Your task to perform on an android device: Clear the cart on walmart.com. Add logitech g910 to the cart on walmart.com, then select checkout. Image 0: 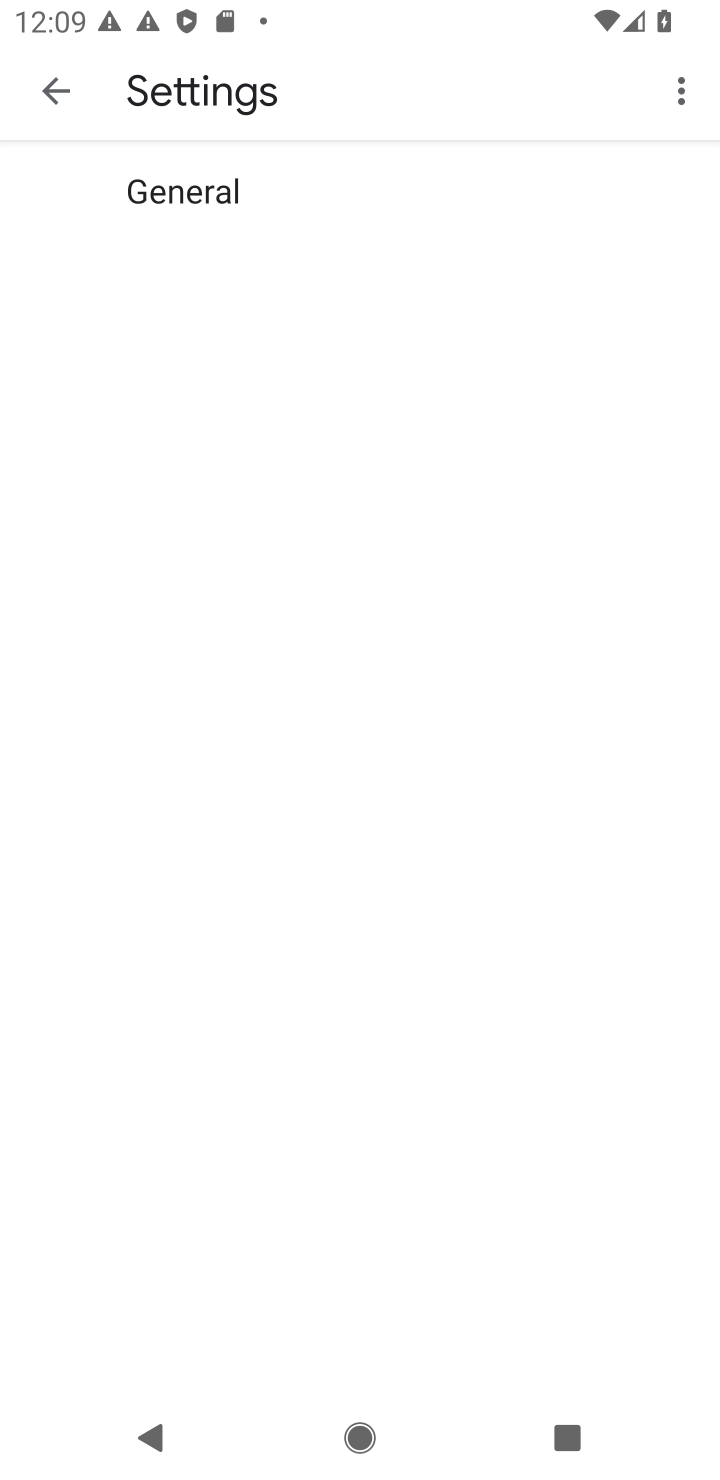
Step 0: press home button
Your task to perform on an android device: Clear the cart on walmart.com. Add logitech g910 to the cart on walmart.com, then select checkout. Image 1: 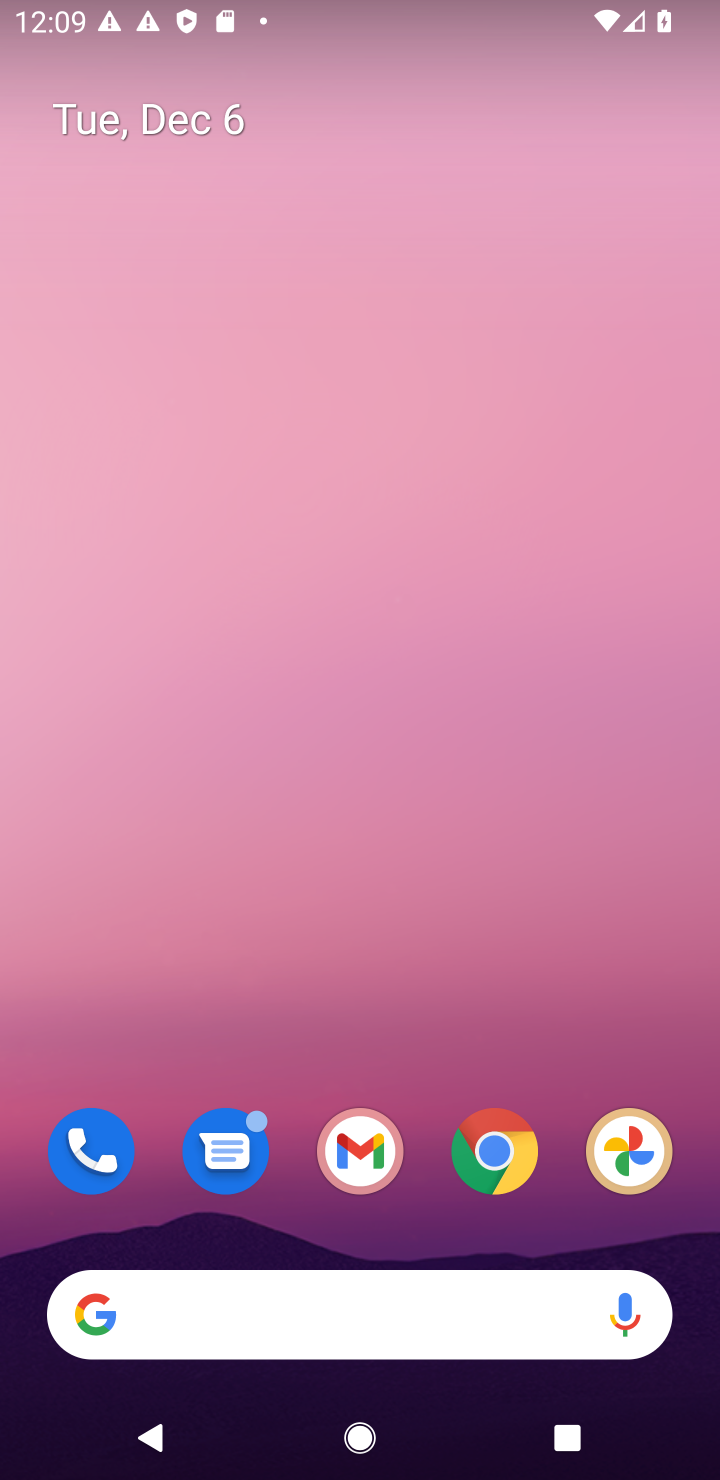
Step 1: click (507, 1155)
Your task to perform on an android device: Clear the cart on walmart.com. Add logitech g910 to the cart on walmart.com, then select checkout. Image 2: 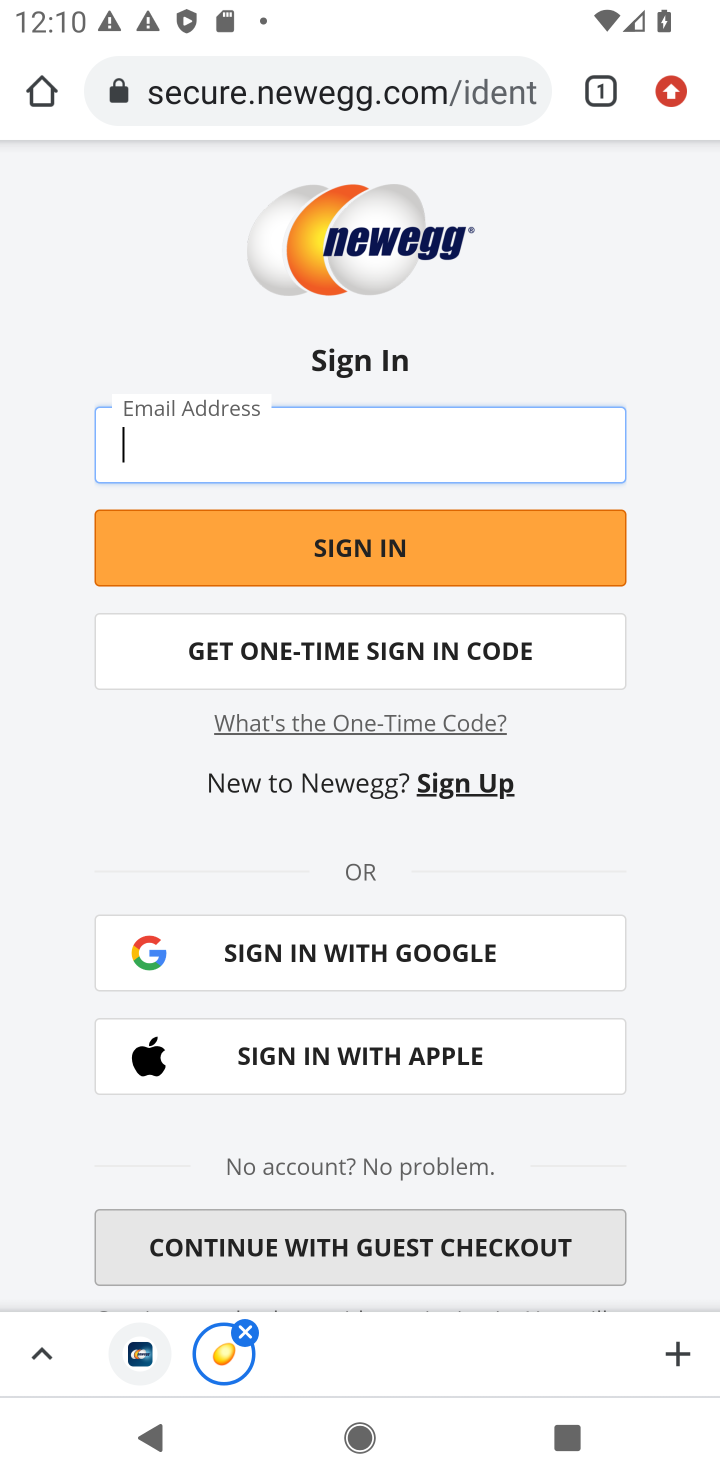
Step 2: click (299, 103)
Your task to perform on an android device: Clear the cart on walmart.com. Add logitech g910 to the cart on walmart.com, then select checkout. Image 3: 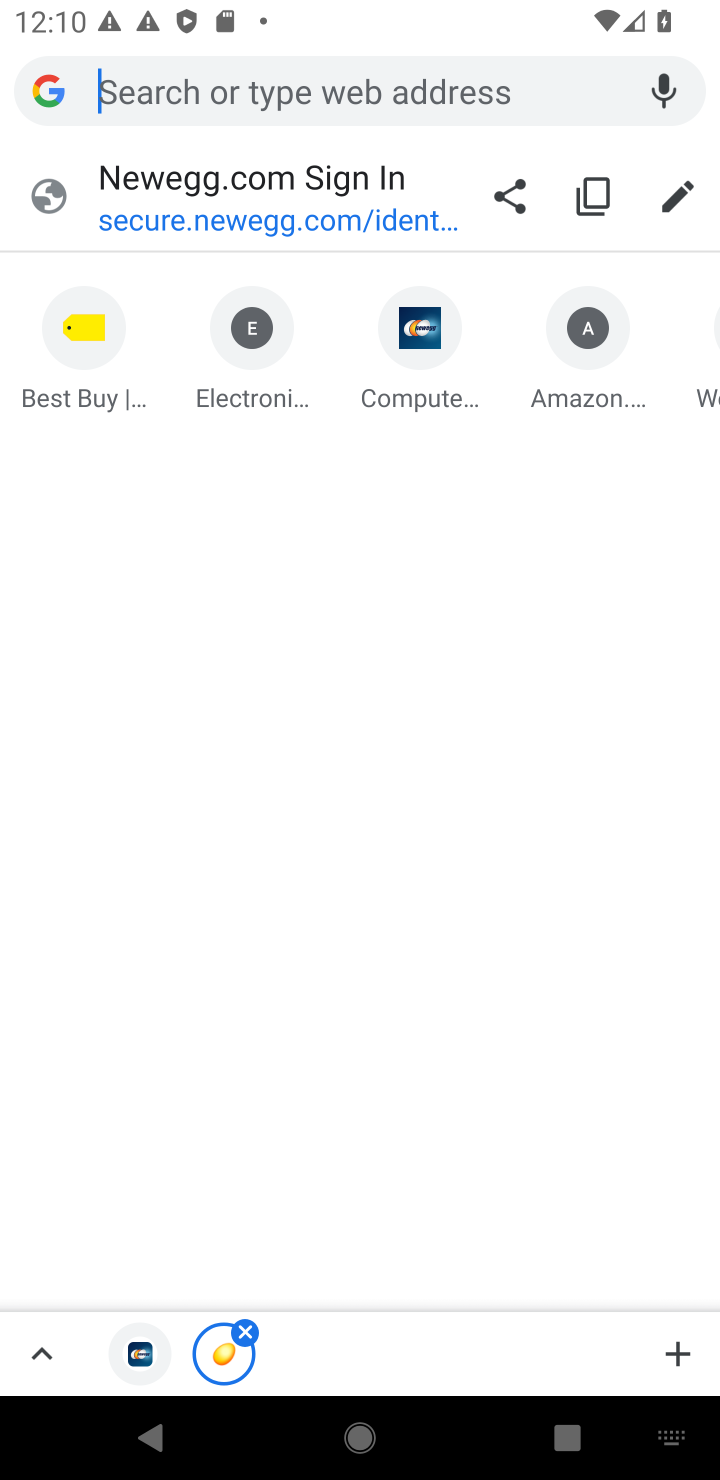
Step 3: type "walmart.com"
Your task to perform on an android device: Clear the cart on walmart.com. Add logitech g910 to the cart on walmart.com, then select checkout. Image 4: 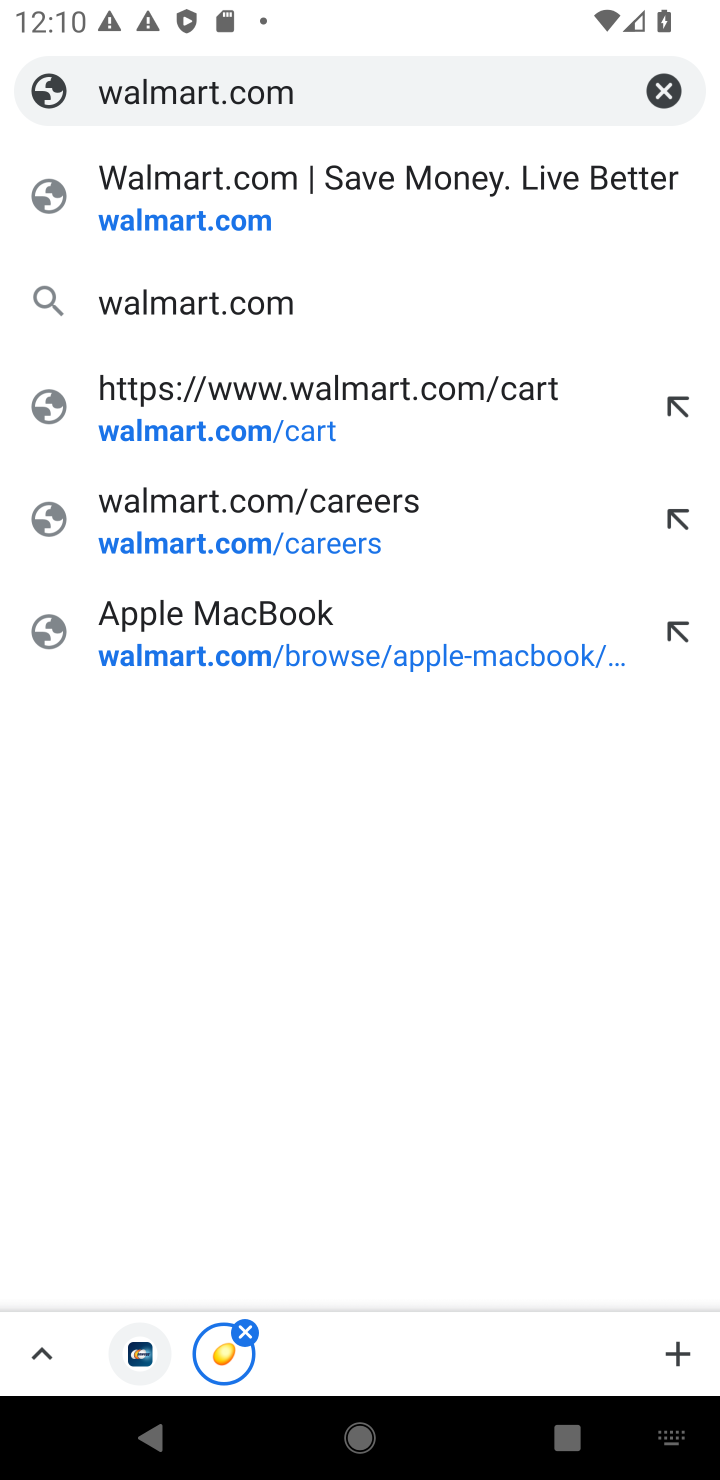
Step 4: click (203, 221)
Your task to perform on an android device: Clear the cart on walmart.com. Add logitech g910 to the cart on walmart.com, then select checkout. Image 5: 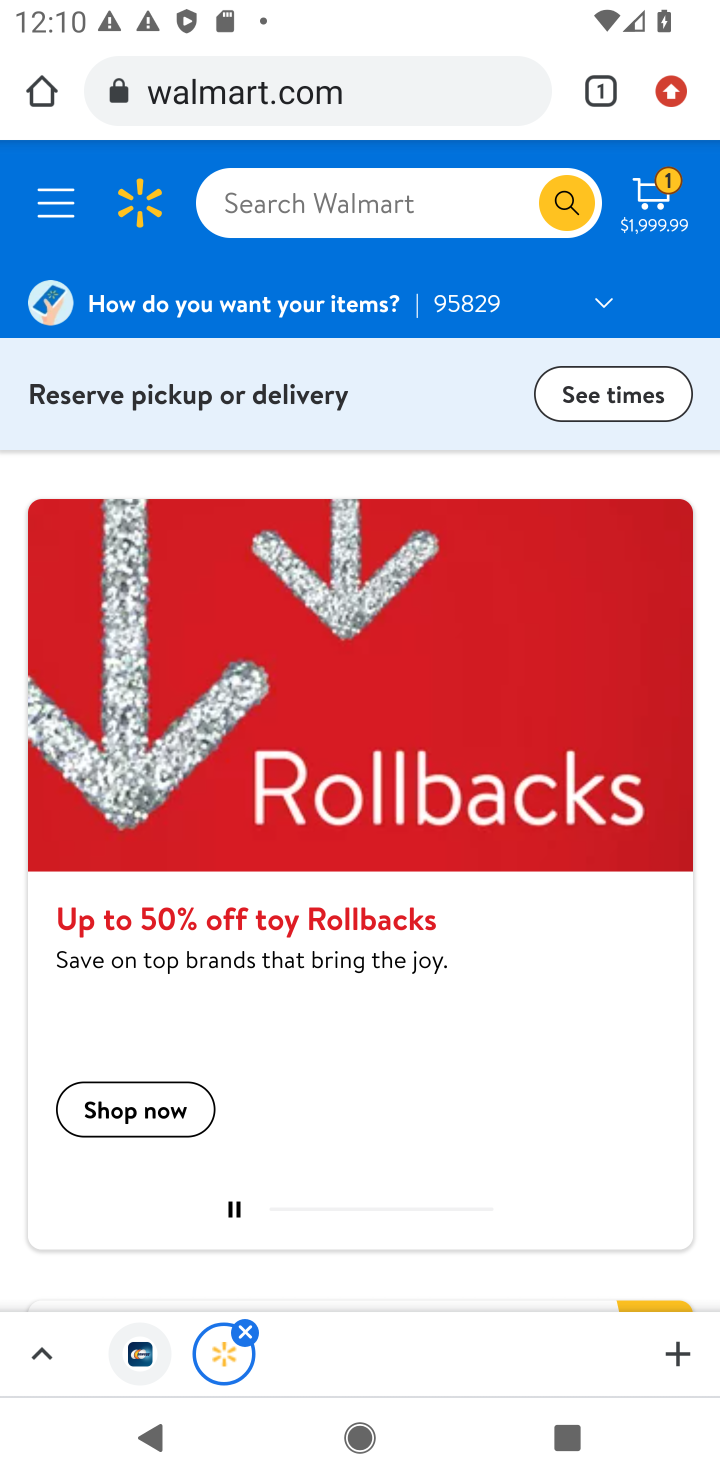
Step 5: click (655, 202)
Your task to perform on an android device: Clear the cart on walmart.com. Add logitech g910 to the cart on walmart.com, then select checkout. Image 6: 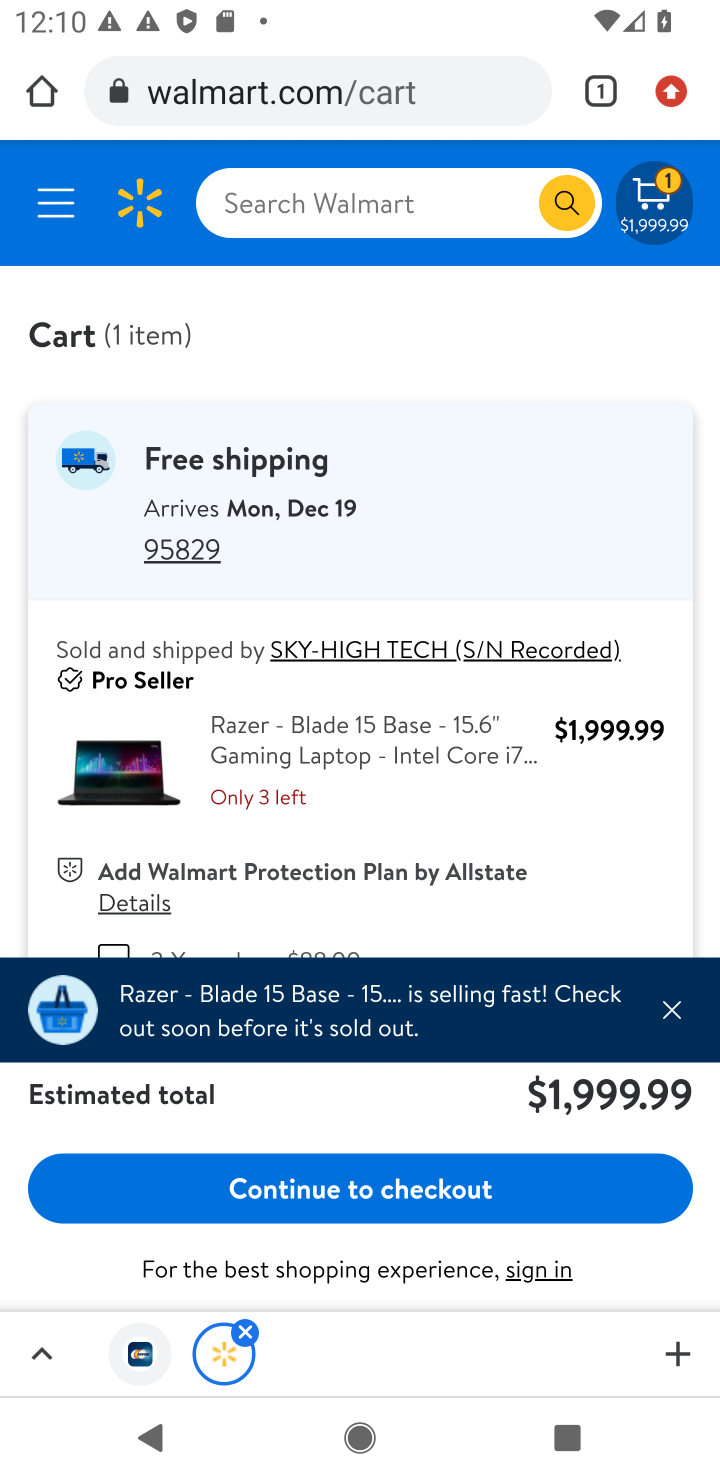
Step 6: click (686, 1012)
Your task to perform on an android device: Clear the cart on walmart.com. Add logitech g910 to the cart on walmart.com, then select checkout. Image 7: 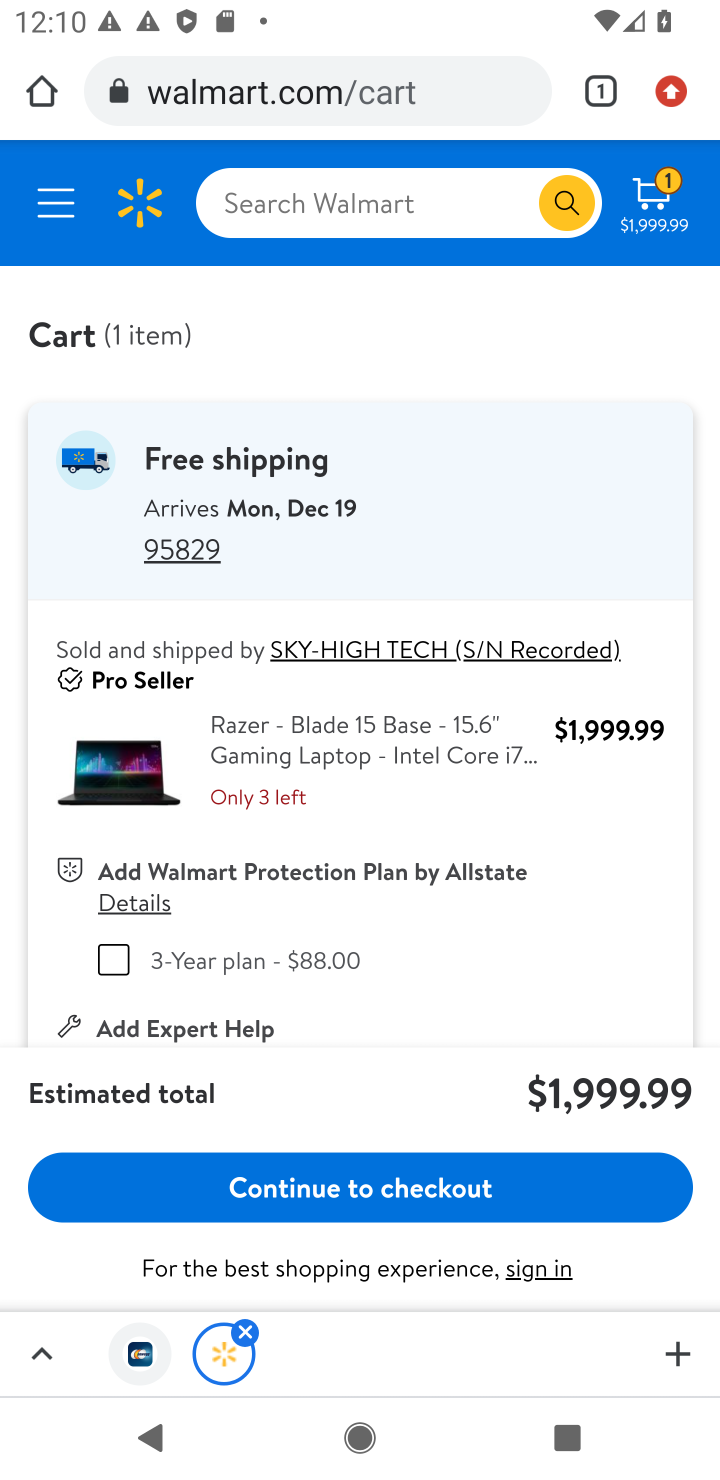
Step 7: drag from (230, 1012) to (255, 512)
Your task to perform on an android device: Clear the cart on walmart.com. Add logitech g910 to the cart on walmart.com, then select checkout. Image 8: 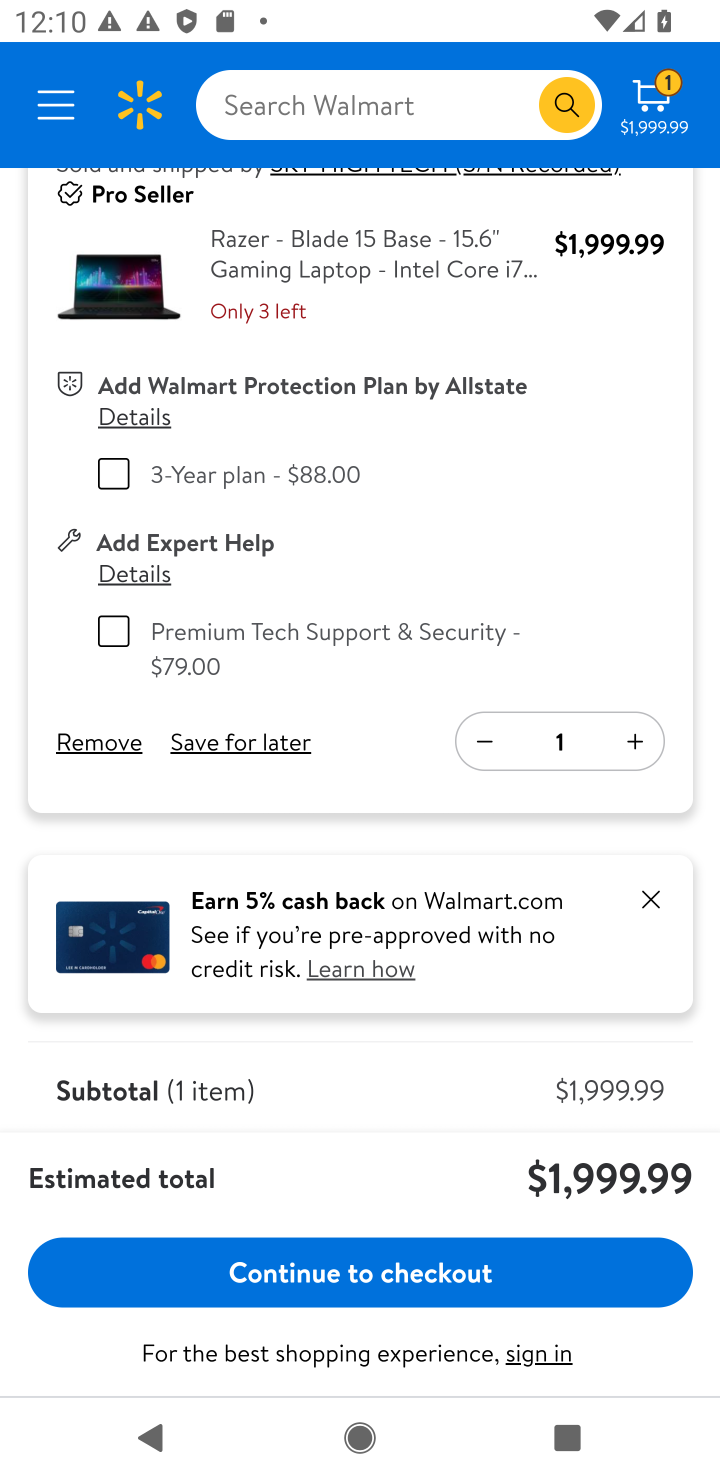
Step 8: click (74, 741)
Your task to perform on an android device: Clear the cart on walmart.com. Add logitech g910 to the cart on walmart.com, then select checkout. Image 9: 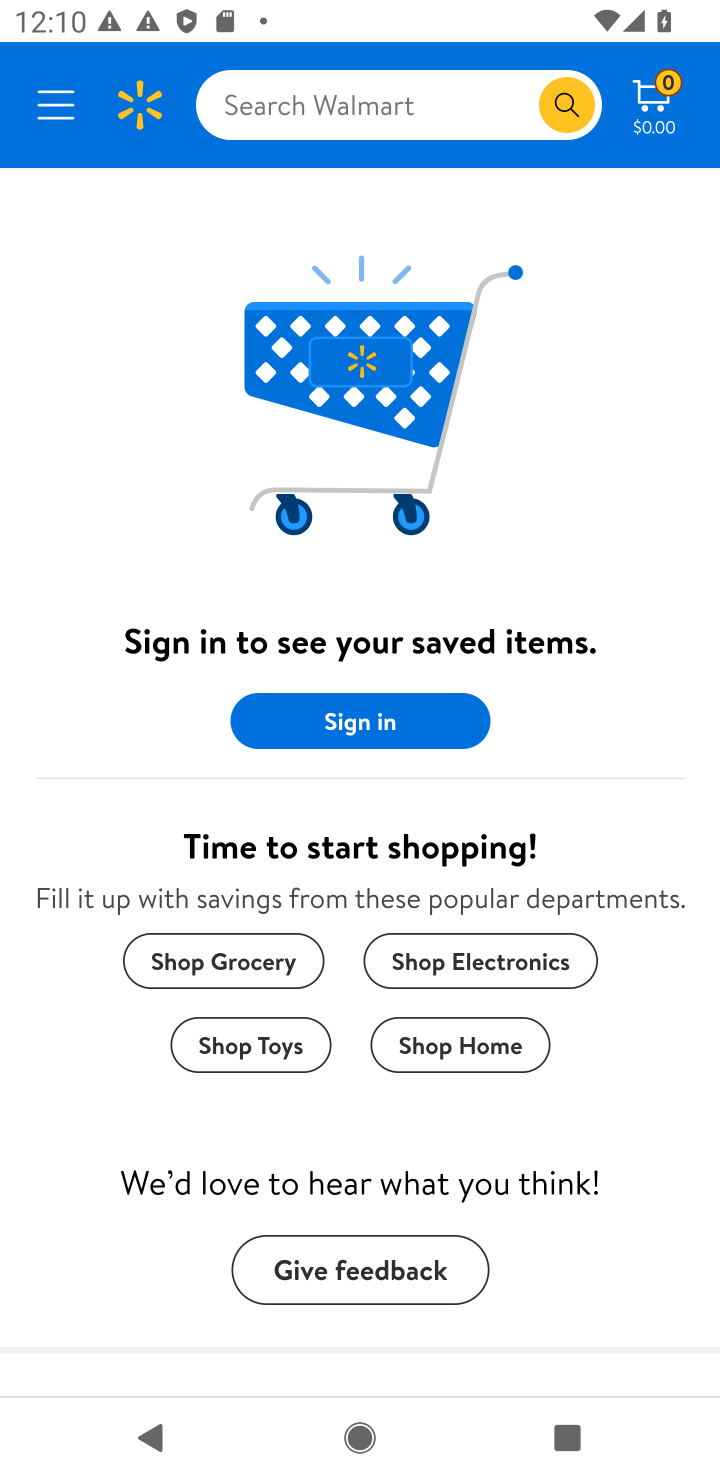
Step 9: click (310, 115)
Your task to perform on an android device: Clear the cart on walmart.com. Add logitech g910 to the cart on walmart.com, then select checkout. Image 10: 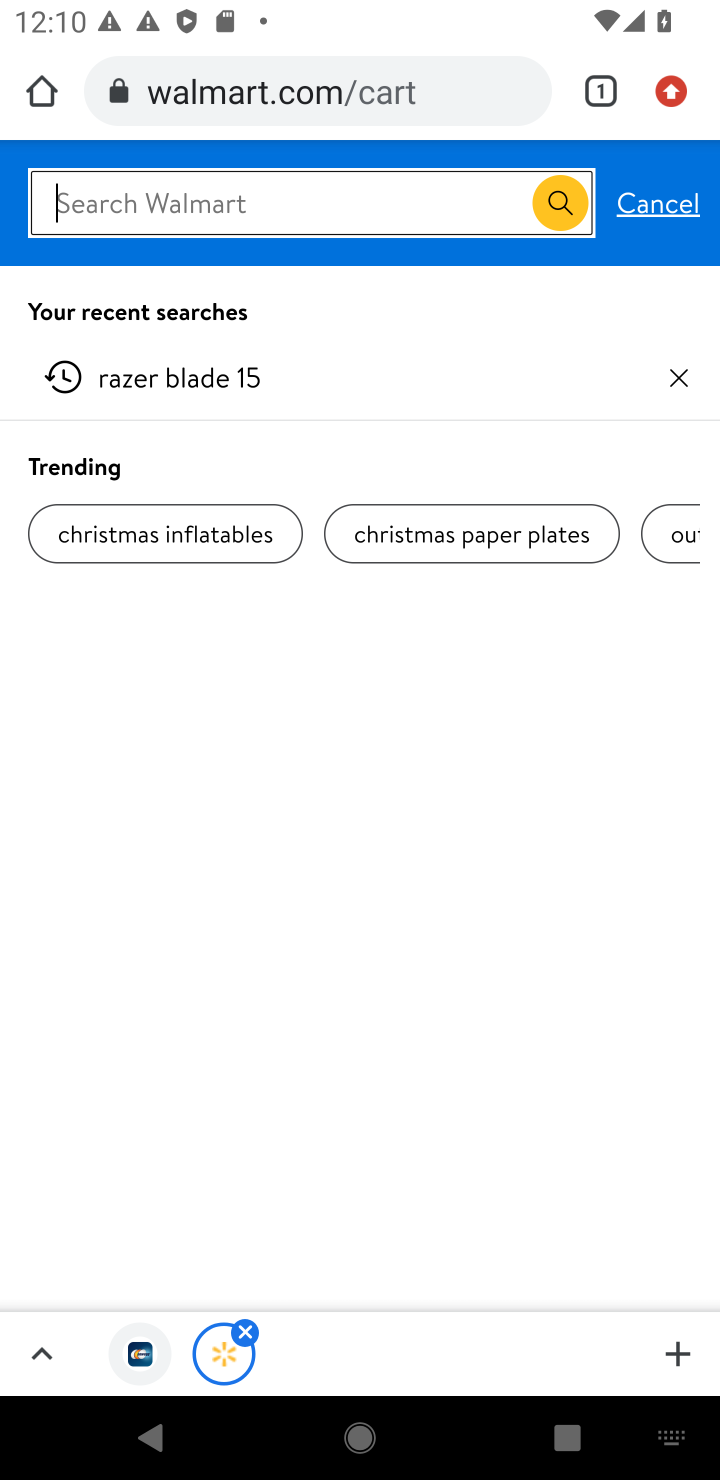
Step 10: type "logitech g910 "
Your task to perform on an android device: Clear the cart on walmart.com. Add logitech g910 to the cart on walmart.com, then select checkout. Image 11: 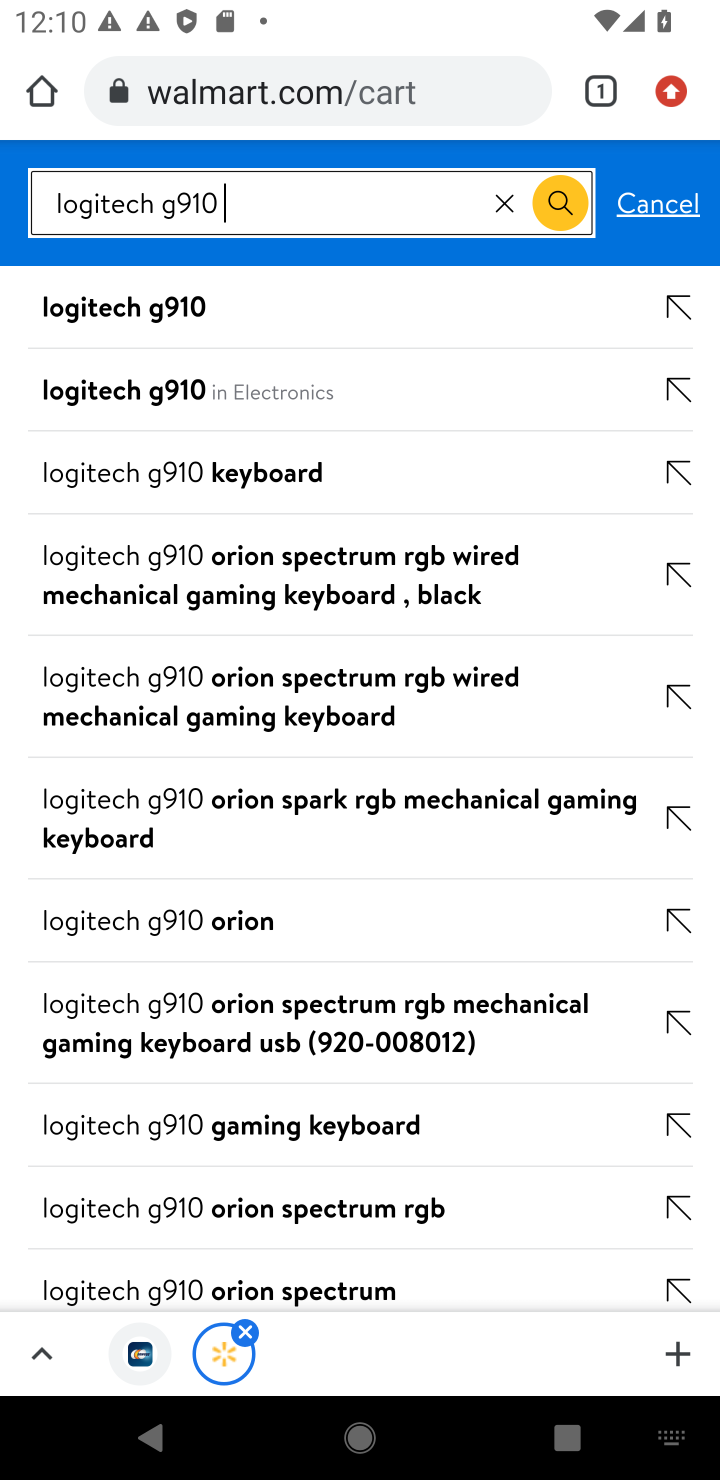
Step 11: click (95, 309)
Your task to perform on an android device: Clear the cart on walmart.com. Add logitech g910 to the cart on walmart.com, then select checkout. Image 12: 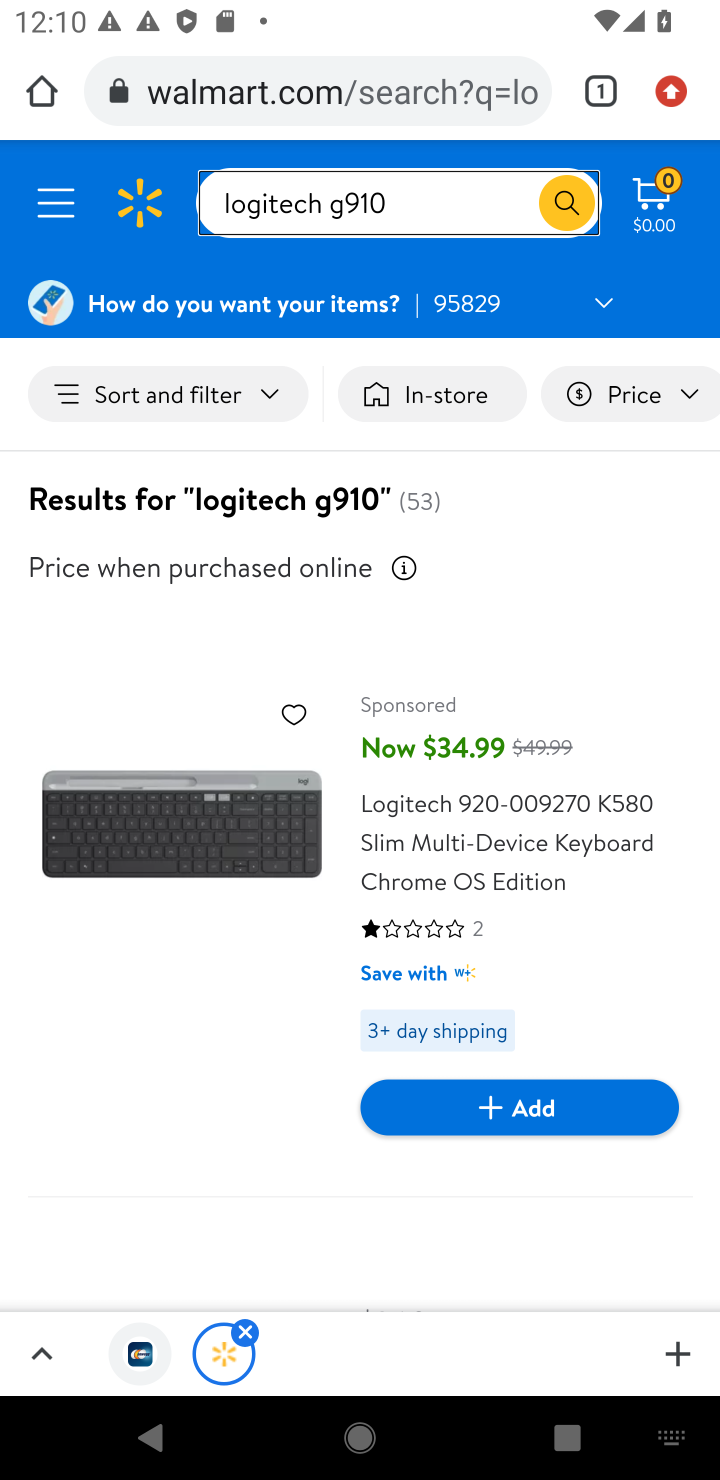
Step 12: drag from (322, 980) to (350, 418)
Your task to perform on an android device: Clear the cart on walmart.com. Add logitech g910 to the cart on walmart.com, then select checkout. Image 13: 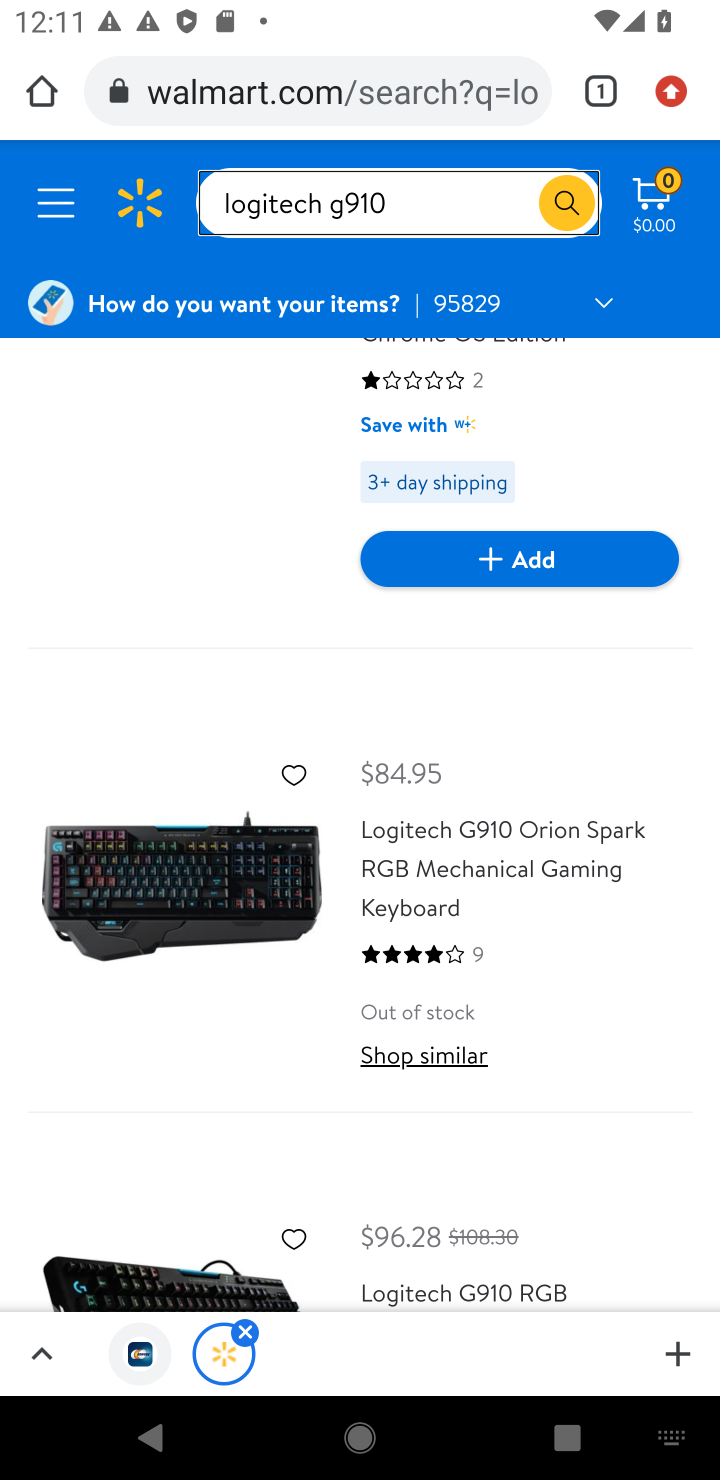
Step 13: drag from (306, 1041) to (344, 334)
Your task to perform on an android device: Clear the cart on walmart.com. Add logitech g910 to the cart on walmart.com, then select checkout. Image 14: 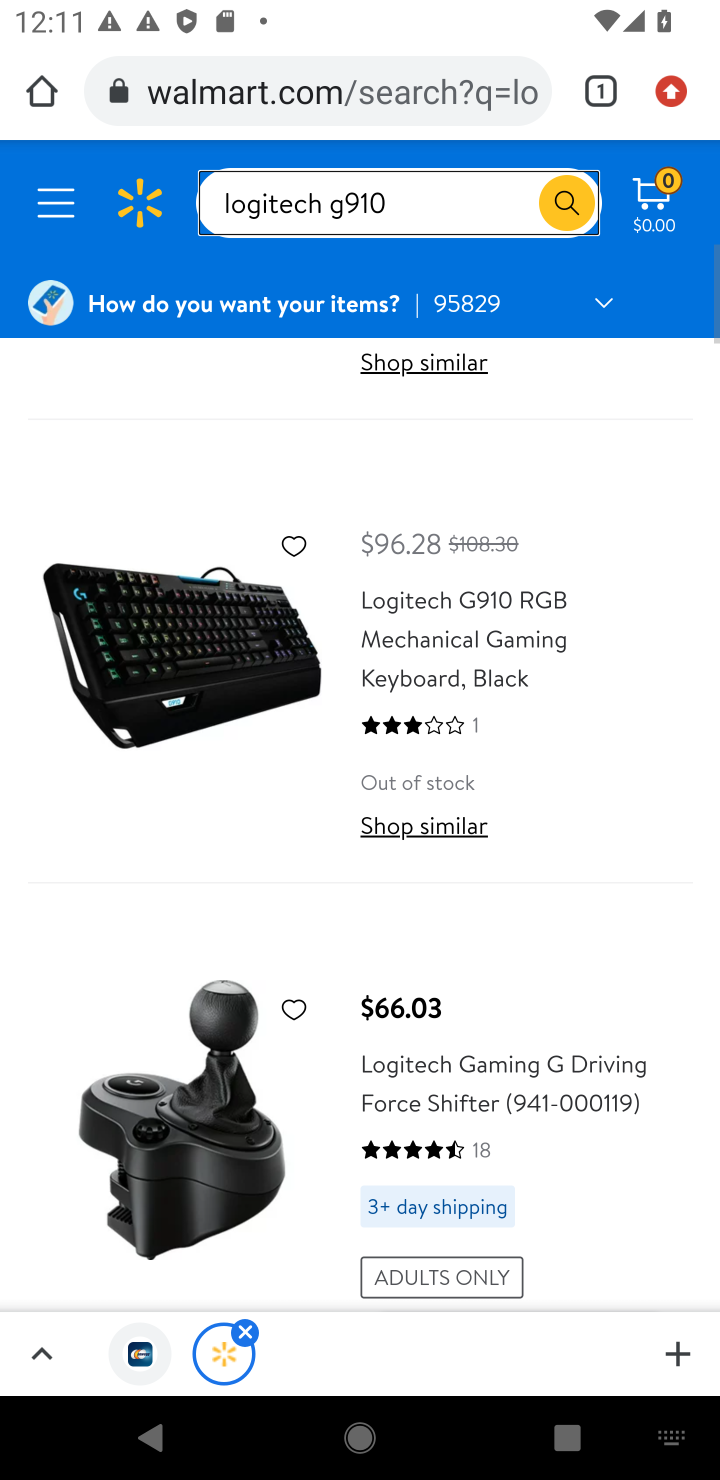
Step 14: drag from (245, 1170) to (299, 547)
Your task to perform on an android device: Clear the cart on walmart.com. Add logitech g910 to the cart on walmart.com, then select checkout. Image 15: 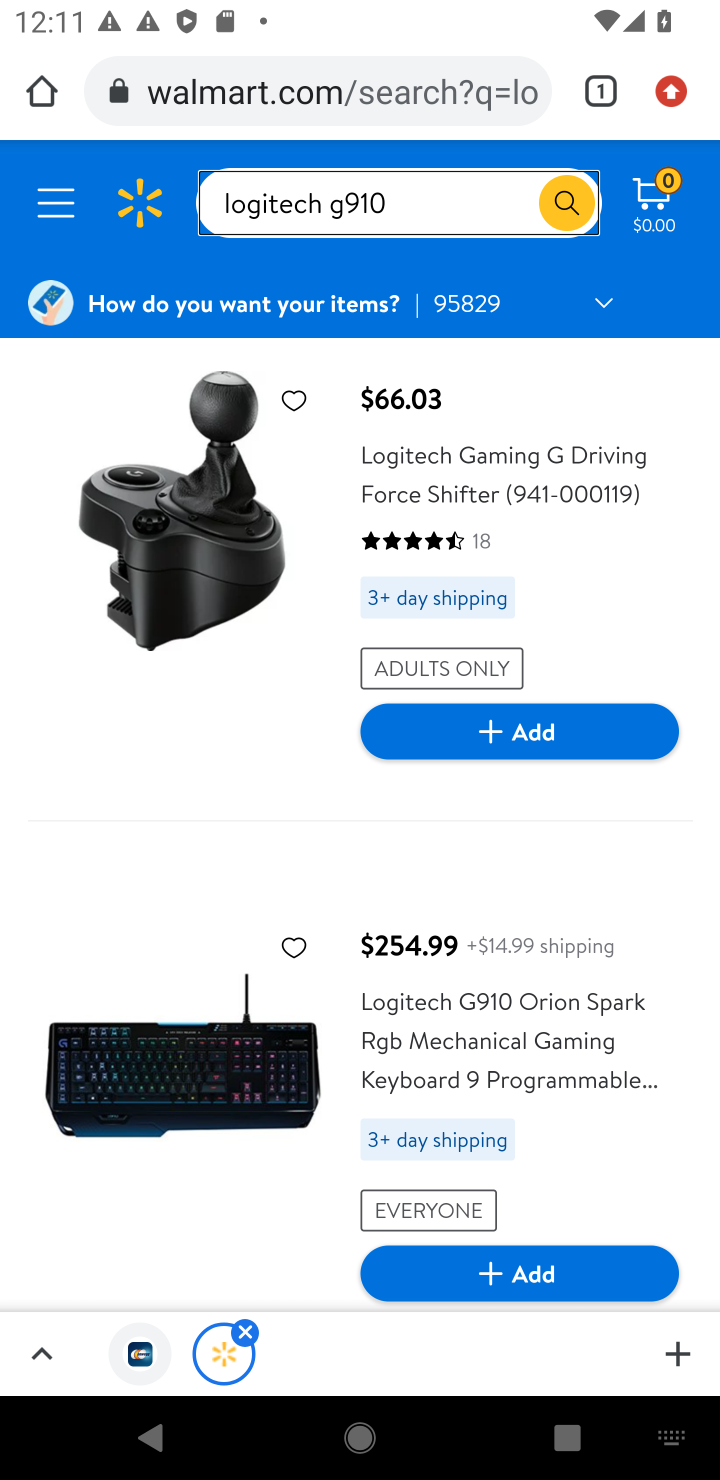
Step 15: drag from (299, 527) to (321, 1065)
Your task to perform on an android device: Clear the cart on walmart.com. Add logitech g910 to the cart on walmart.com, then select checkout. Image 16: 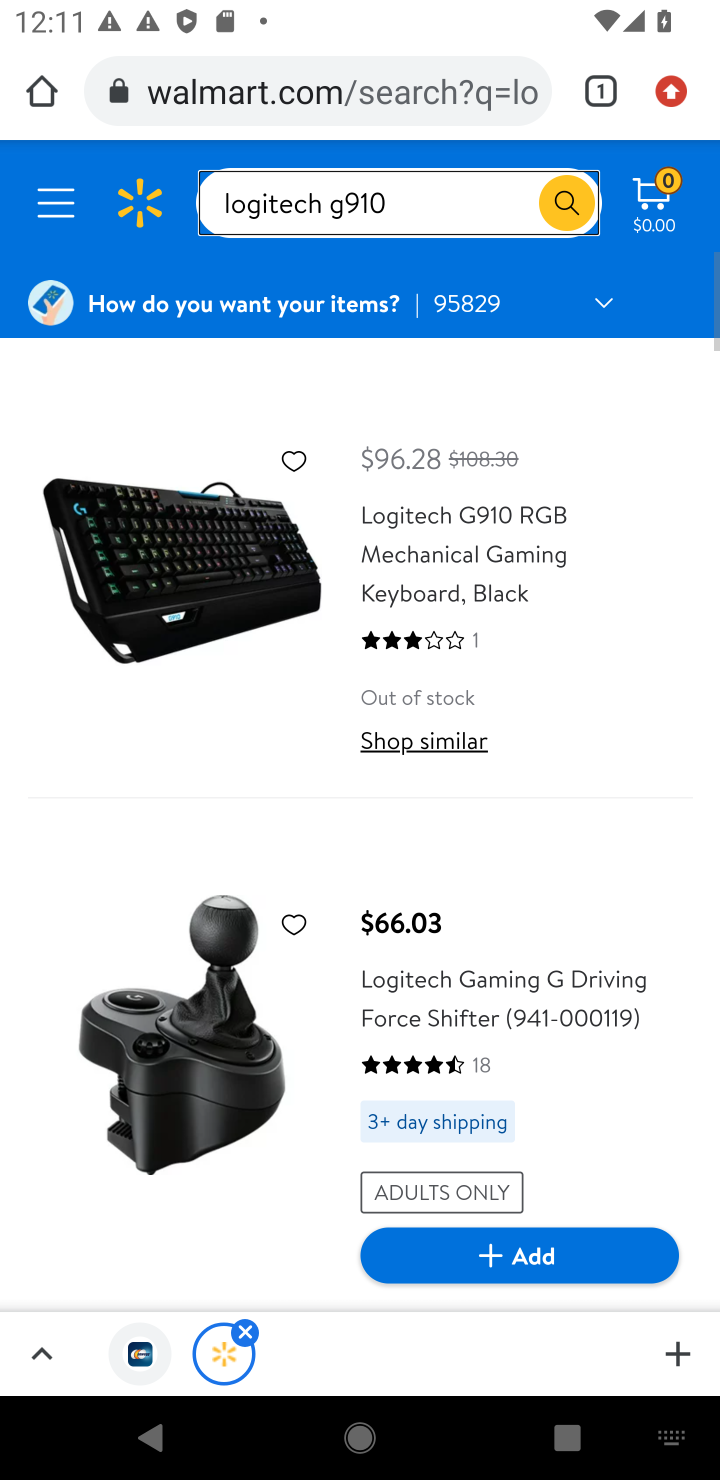
Step 16: drag from (321, 1065) to (335, 653)
Your task to perform on an android device: Clear the cart on walmart.com. Add logitech g910 to the cart on walmart.com, then select checkout. Image 17: 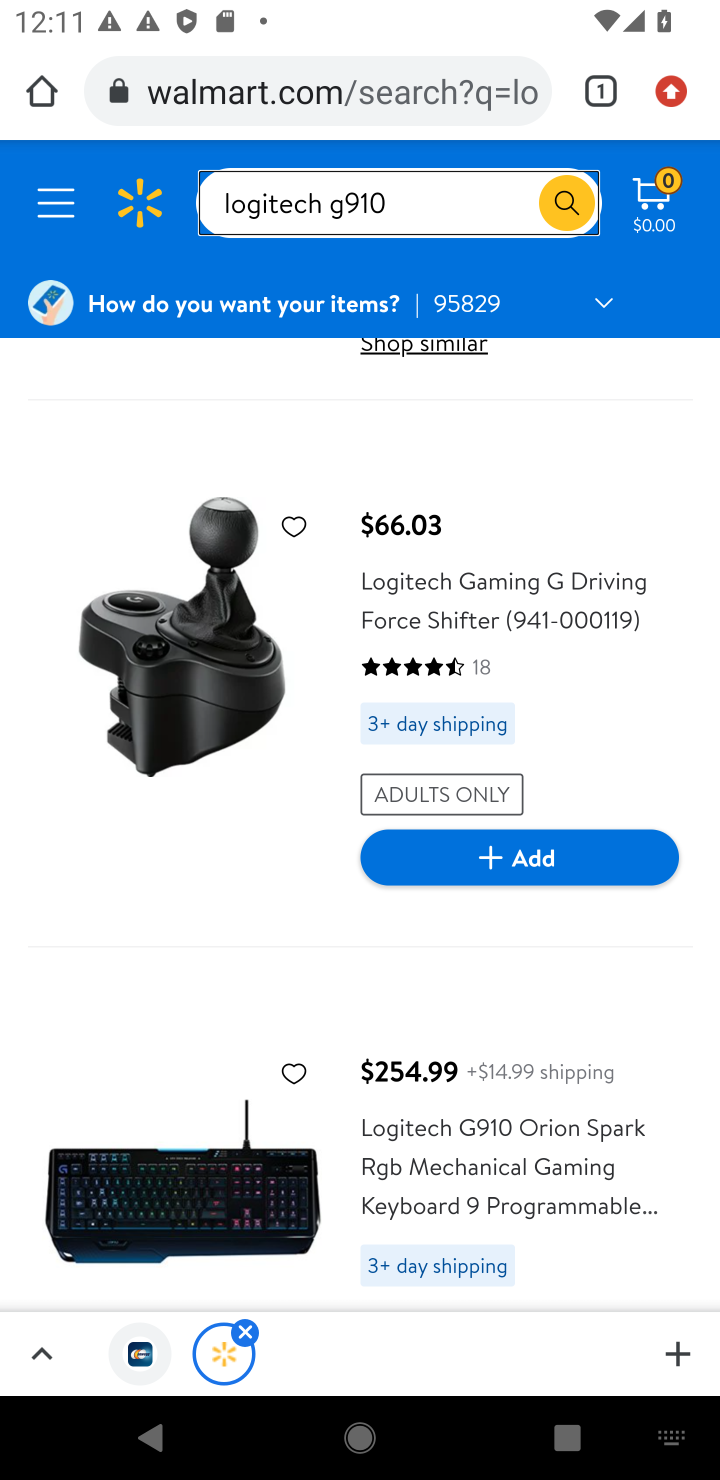
Step 17: drag from (473, 1172) to (479, 736)
Your task to perform on an android device: Clear the cart on walmart.com. Add logitech g910 to the cart on walmart.com, then select checkout. Image 18: 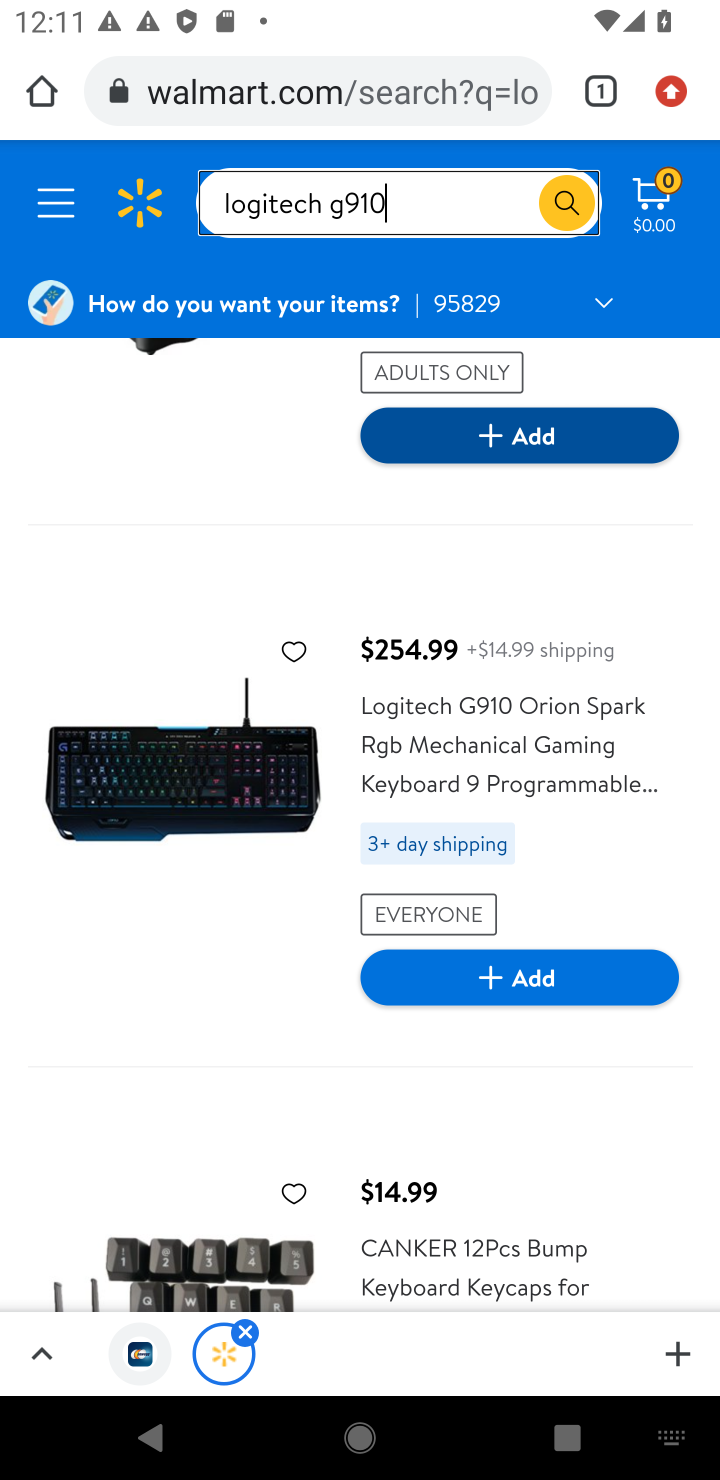
Step 18: click (524, 993)
Your task to perform on an android device: Clear the cart on walmart.com. Add logitech g910 to the cart on walmart.com, then select checkout. Image 19: 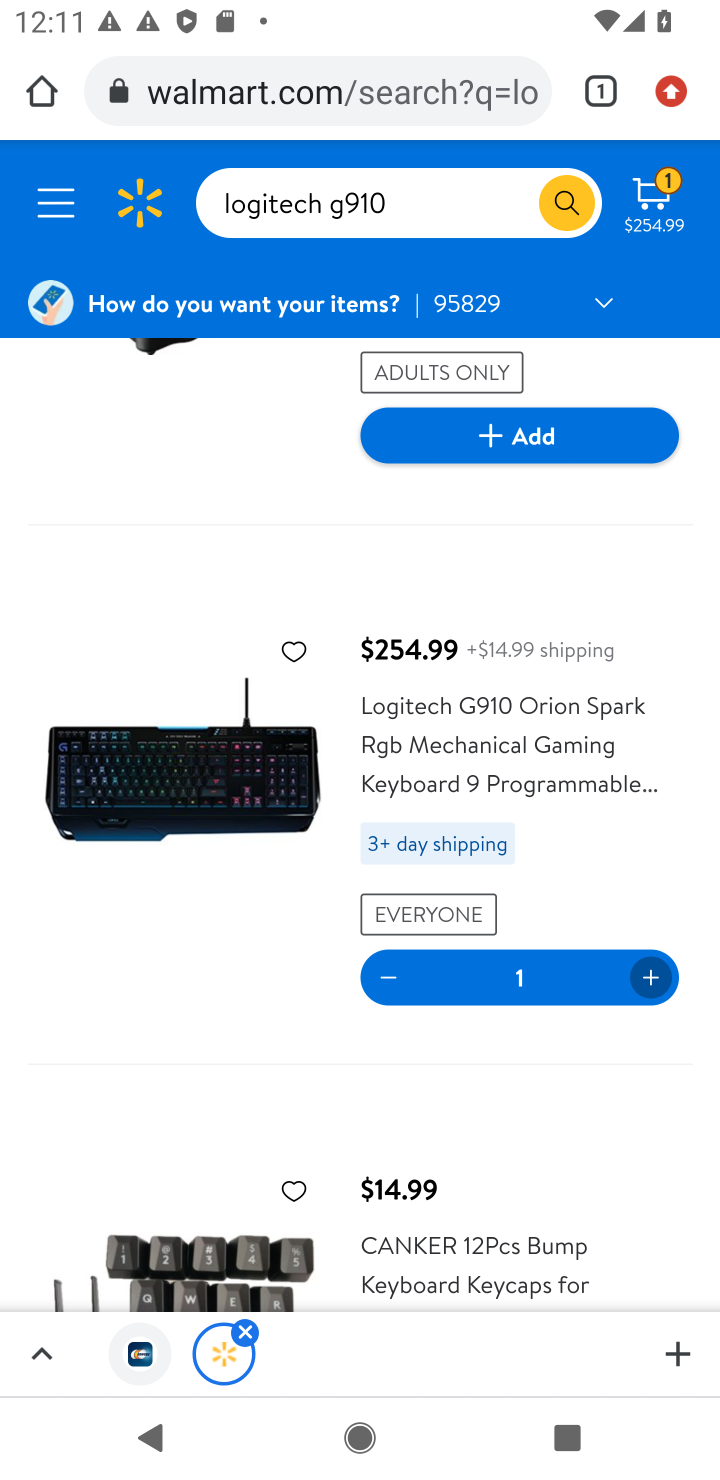
Step 19: click (646, 210)
Your task to perform on an android device: Clear the cart on walmart.com. Add logitech g910 to the cart on walmart.com, then select checkout. Image 20: 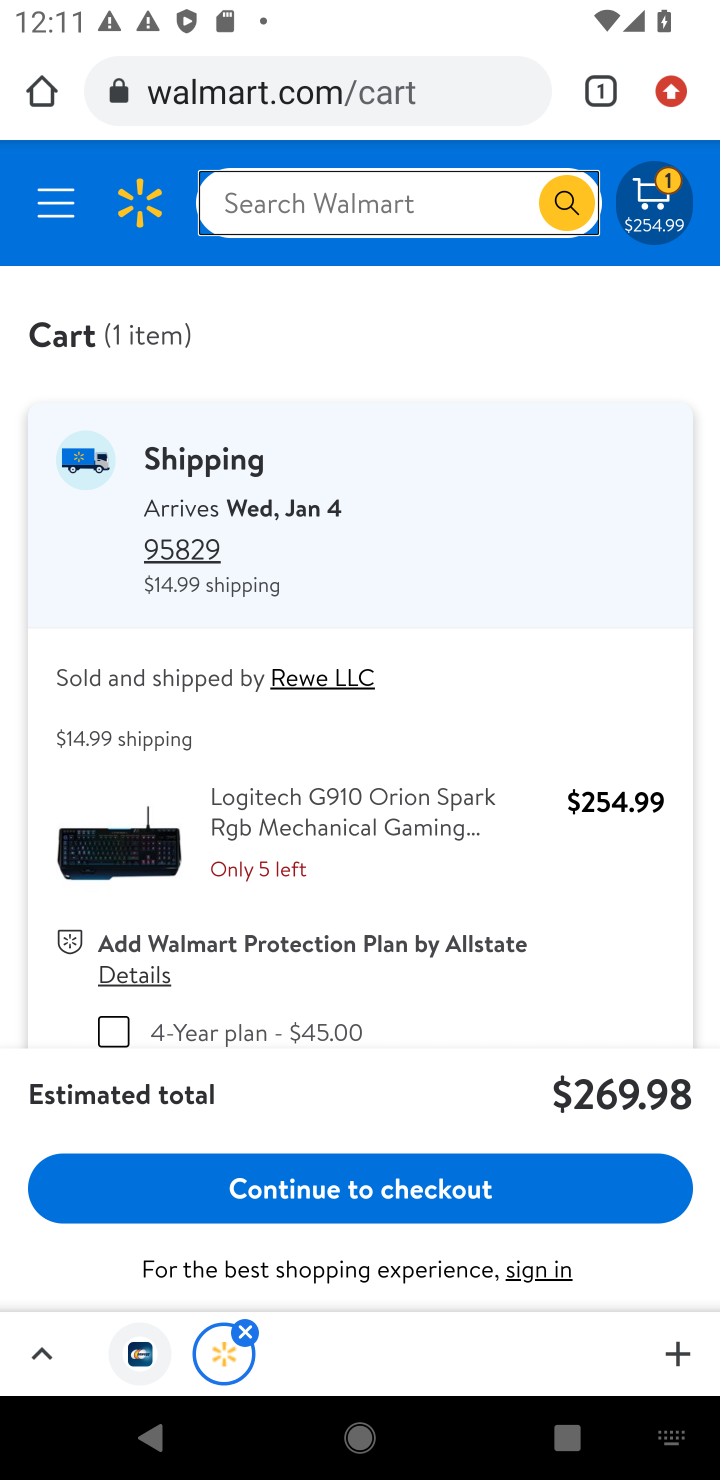
Step 20: click (363, 1192)
Your task to perform on an android device: Clear the cart on walmart.com. Add logitech g910 to the cart on walmart.com, then select checkout. Image 21: 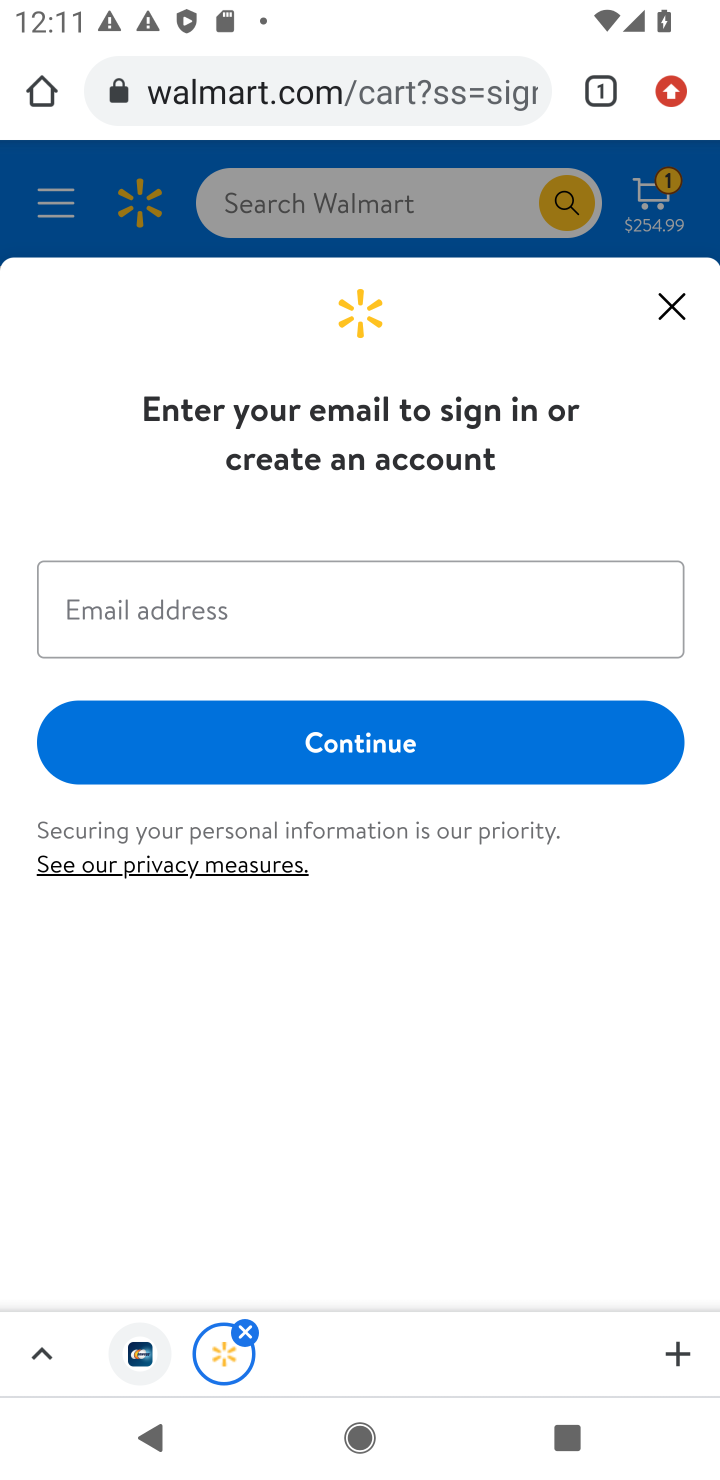
Step 21: task complete